Your task to perform on an android device: Show me popular games on the Play Store Image 0: 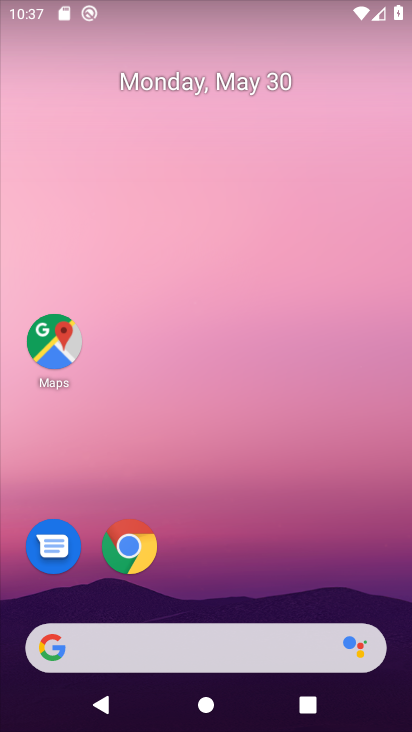
Step 0: drag from (198, 575) to (201, 303)
Your task to perform on an android device: Show me popular games on the Play Store Image 1: 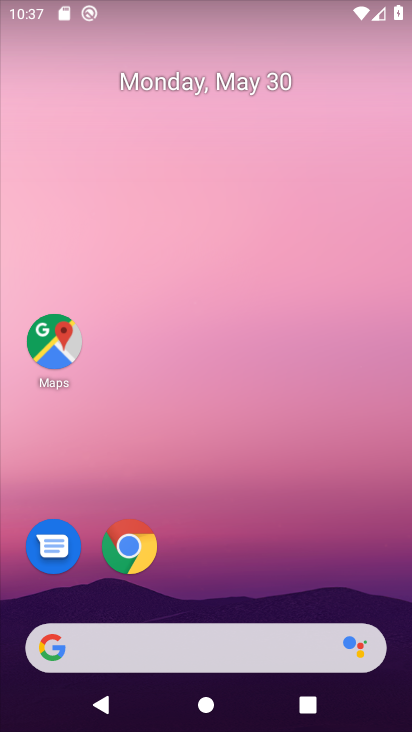
Step 1: drag from (215, 520) to (373, 2)
Your task to perform on an android device: Show me popular games on the Play Store Image 2: 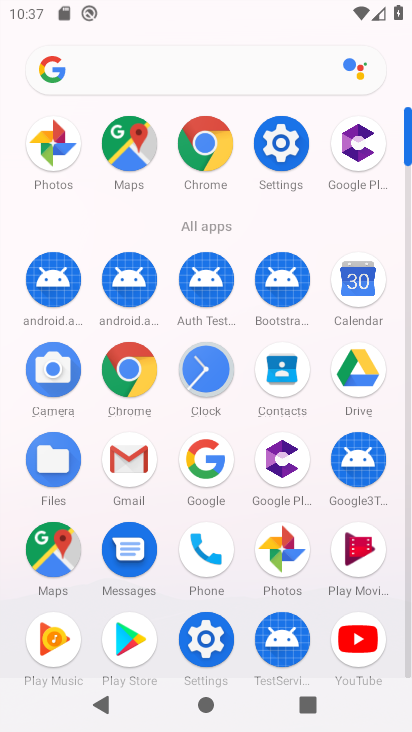
Step 2: click (127, 640)
Your task to perform on an android device: Show me popular games on the Play Store Image 3: 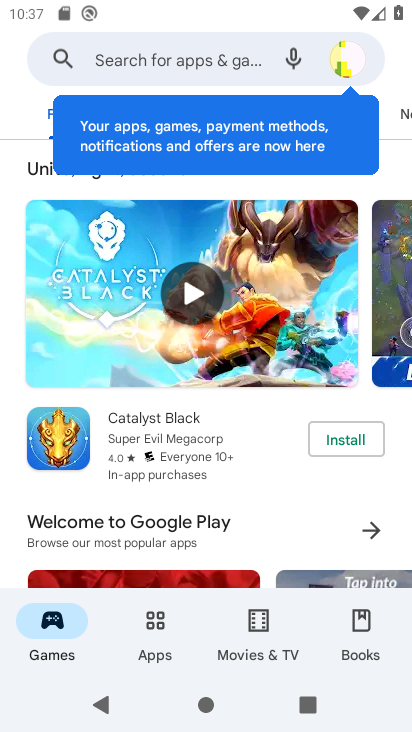
Step 3: drag from (42, 117) to (2, 109)
Your task to perform on an android device: Show me popular games on the Play Store Image 4: 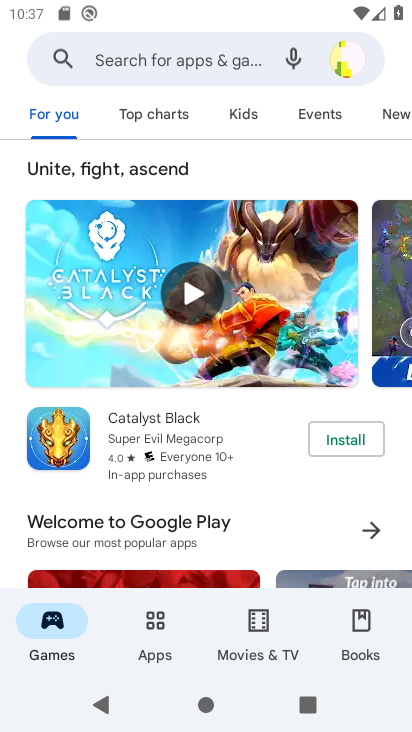
Step 4: click (171, 112)
Your task to perform on an android device: Show me popular games on the Play Store Image 5: 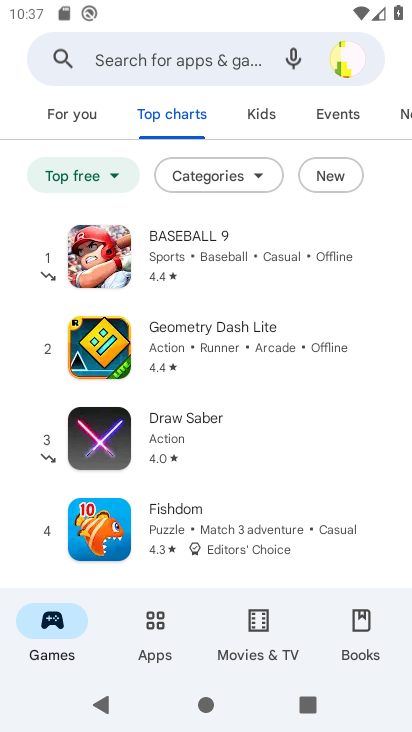
Step 5: task complete